Your task to perform on an android device: open device folders in google photos Image 0: 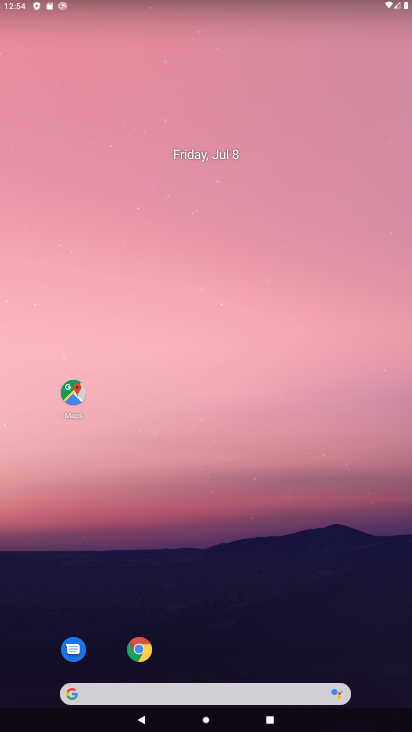
Step 0: drag from (345, 605) to (315, 111)
Your task to perform on an android device: open device folders in google photos Image 1: 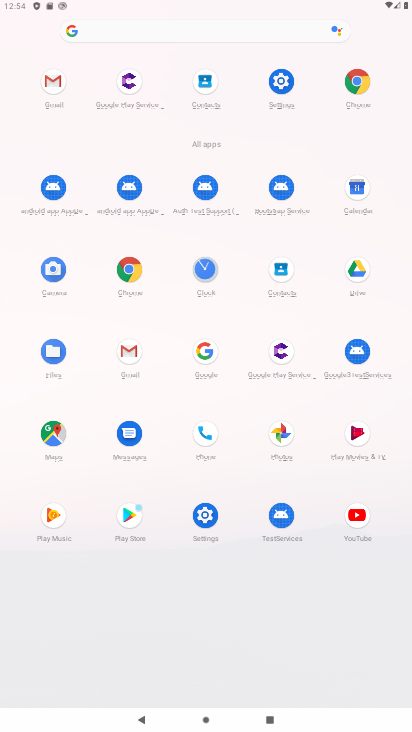
Step 1: click (277, 435)
Your task to perform on an android device: open device folders in google photos Image 2: 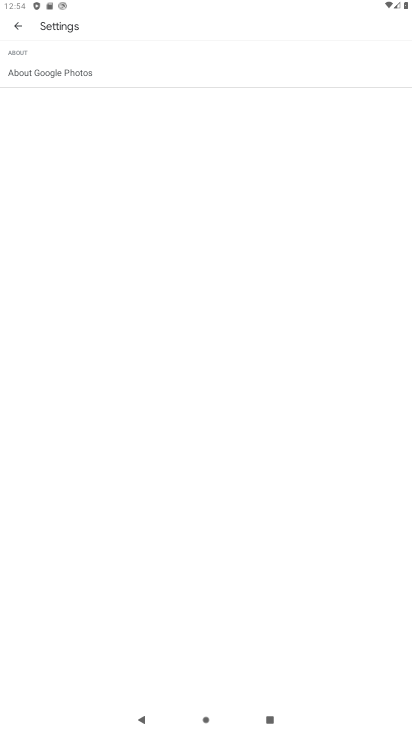
Step 2: click (15, 24)
Your task to perform on an android device: open device folders in google photos Image 3: 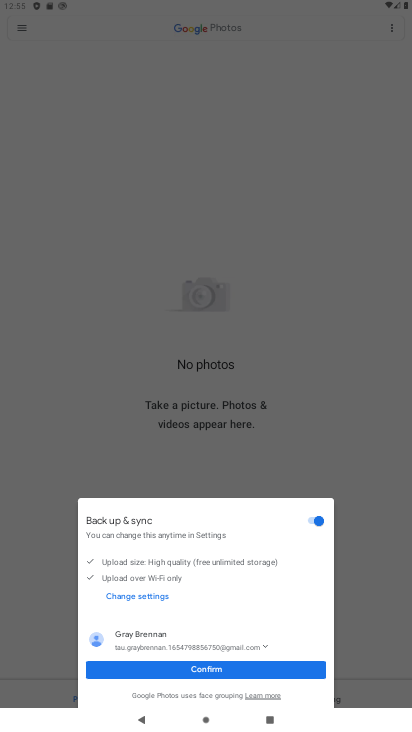
Step 3: click (227, 674)
Your task to perform on an android device: open device folders in google photos Image 4: 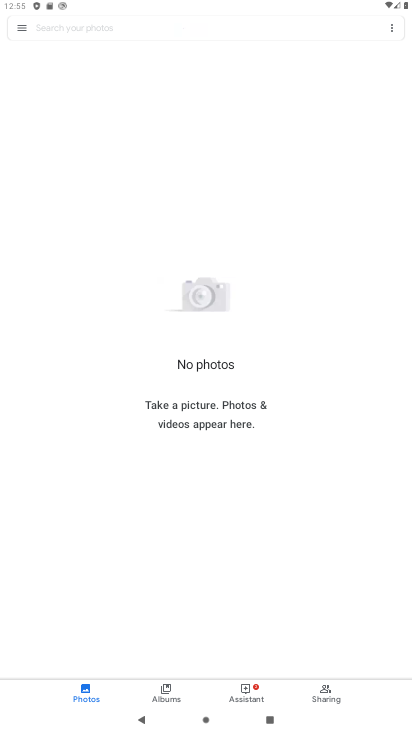
Step 4: click (19, 28)
Your task to perform on an android device: open device folders in google photos Image 5: 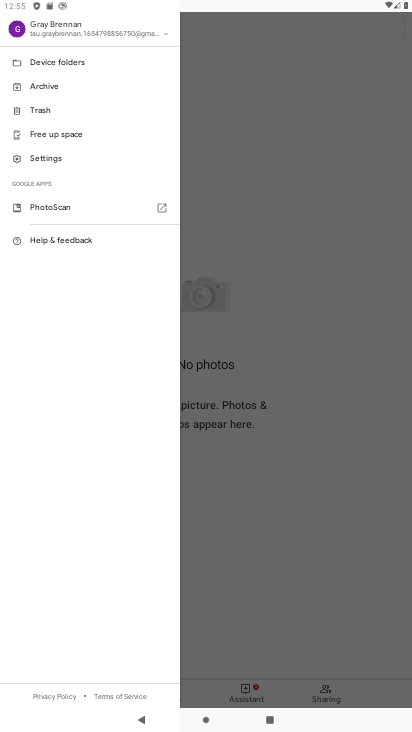
Step 5: click (62, 65)
Your task to perform on an android device: open device folders in google photos Image 6: 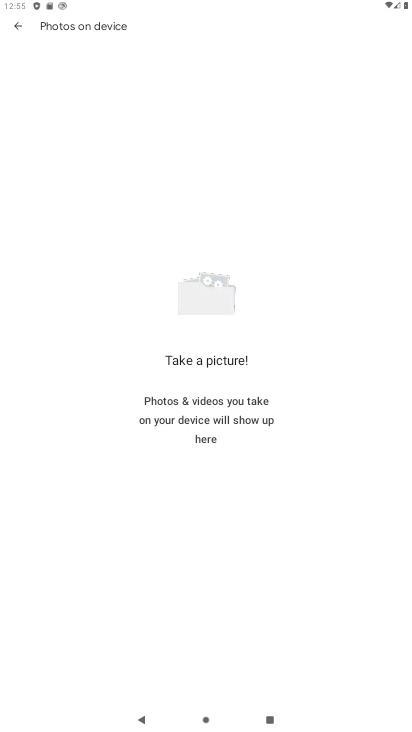
Step 6: task complete